Your task to perform on an android device: Show me productivity apps on the Play Store Image 0: 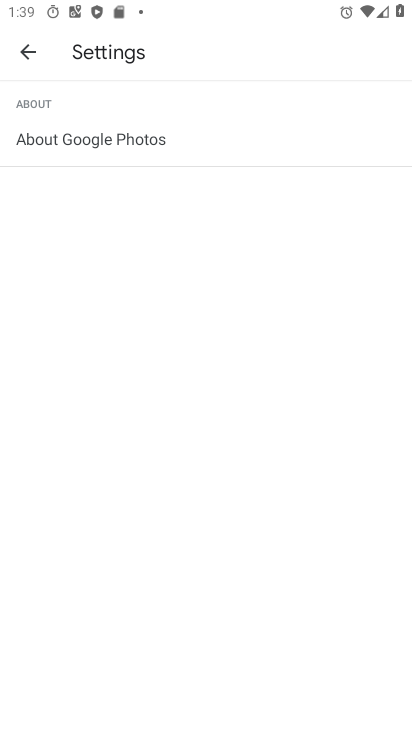
Step 0: press home button
Your task to perform on an android device: Show me productivity apps on the Play Store Image 1: 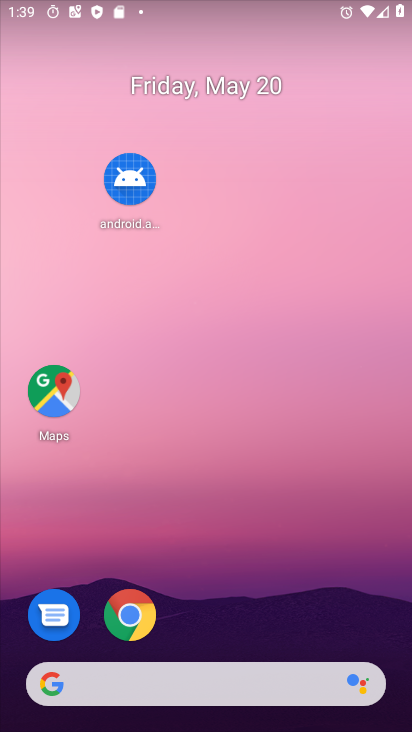
Step 1: drag from (299, 564) to (221, 76)
Your task to perform on an android device: Show me productivity apps on the Play Store Image 2: 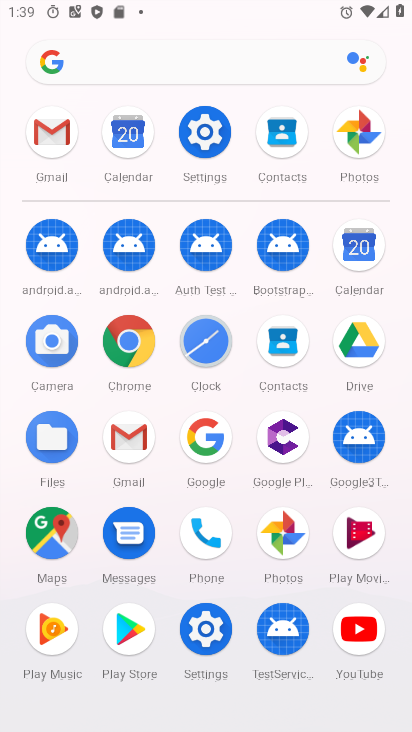
Step 2: click (126, 617)
Your task to perform on an android device: Show me productivity apps on the Play Store Image 3: 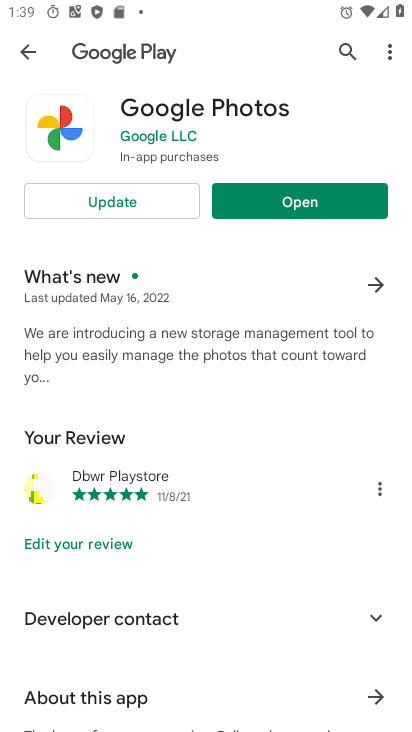
Step 3: click (20, 57)
Your task to perform on an android device: Show me productivity apps on the Play Store Image 4: 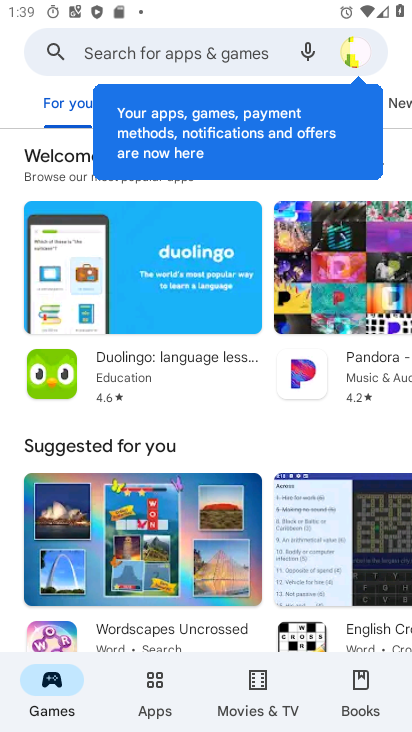
Step 4: click (144, 690)
Your task to perform on an android device: Show me productivity apps on the Play Store Image 5: 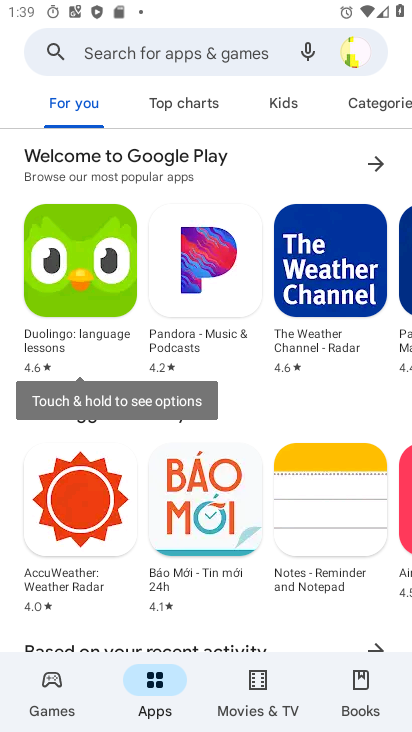
Step 5: click (388, 92)
Your task to perform on an android device: Show me productivity apps on the Play Store Image 6: 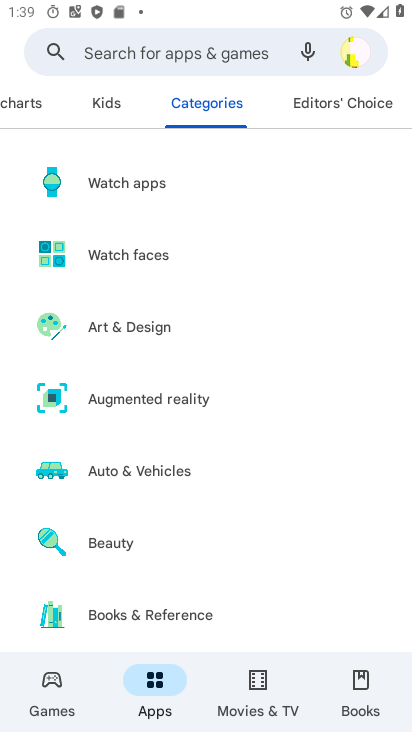
Step 6: drag from (349, 540) to (258, 38)
Your task to perform on an android device: Show me productivity apps on the Play Store Image 7: 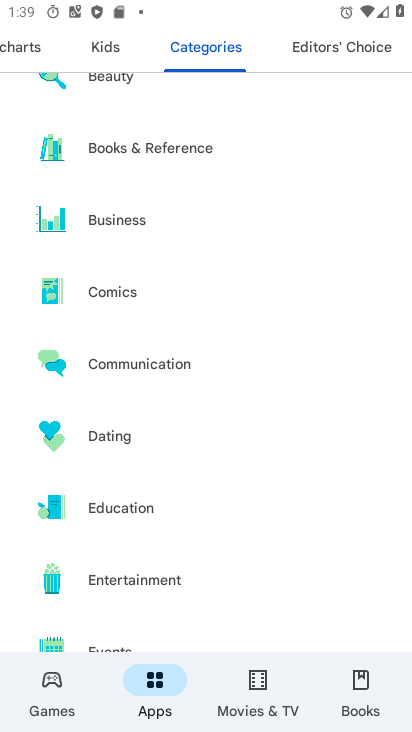
Step 7: drag from (299, 564) to (243, 216)
Your task to perform on an android device: Show me productivity apps on the Play Store Image 8: 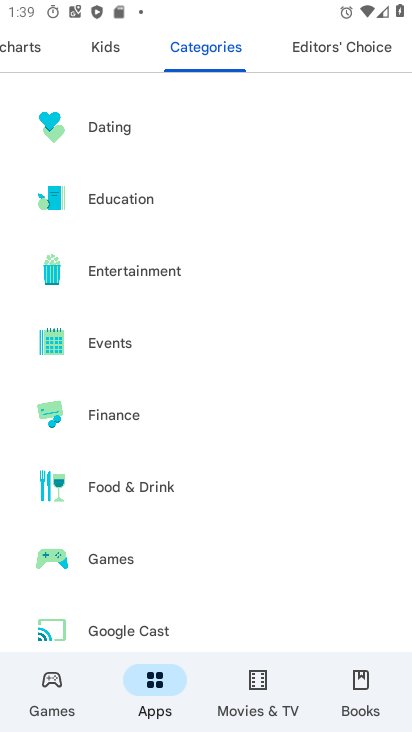
Step 8: drag from (182, 562) to (168, 223)
Your task to perform on an android device: Show me productivity apps on the Play Store Image 9: 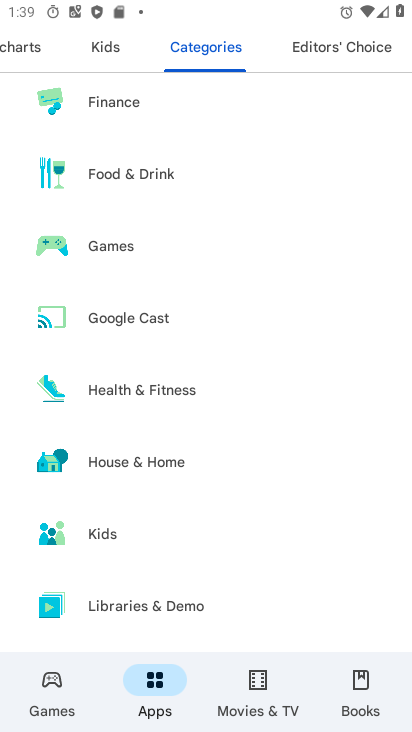
Step 9: drag from (222, 530) to (206, 197)
Your task to perform on an android device: Show me productivity apps on the Play Store Image 10: 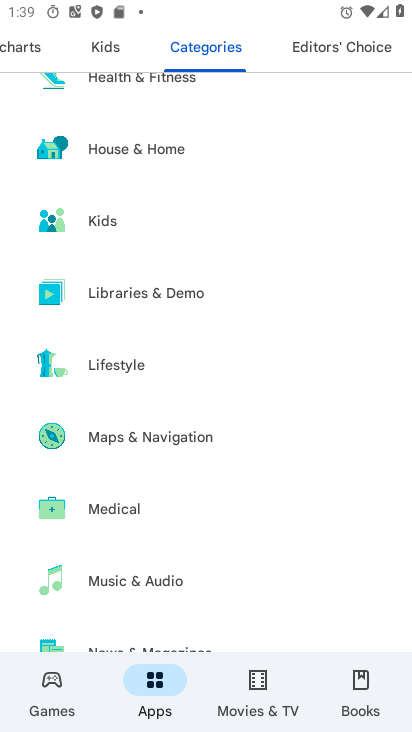
Step 10: drag from (230, 569) to (217, 349)
Your task to perform on an android device: Show me productivity apps on the Play Store Image 11: 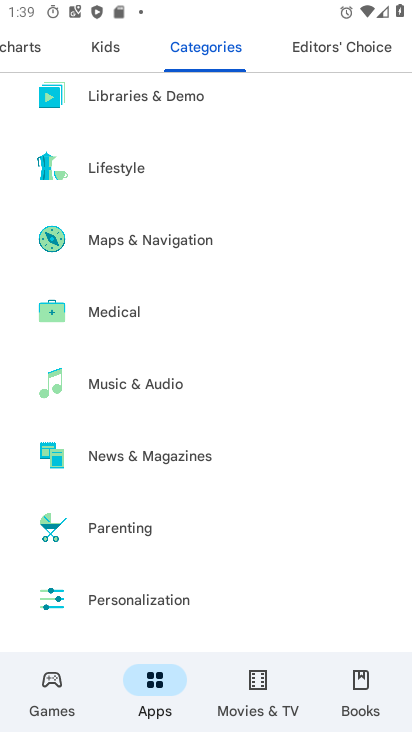
Step 11: drag from (185, 532) to (183, 299)
Your task to perform on an android device: Show me productivity apps on the Play Store Image 12: 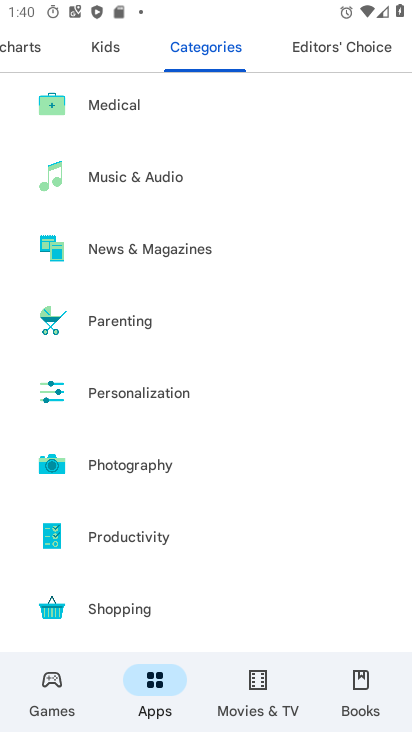
Step 12: click (169, 541)
Your task to perform on an android device: Show me productivity apps on the Play Store Image 13: 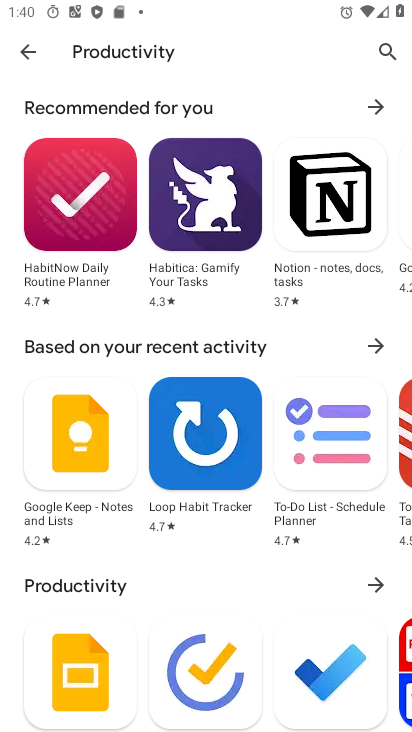
Step 13: task complete